Your task to perform on an android device: turn vacation reply on in the gmail app Image 0: 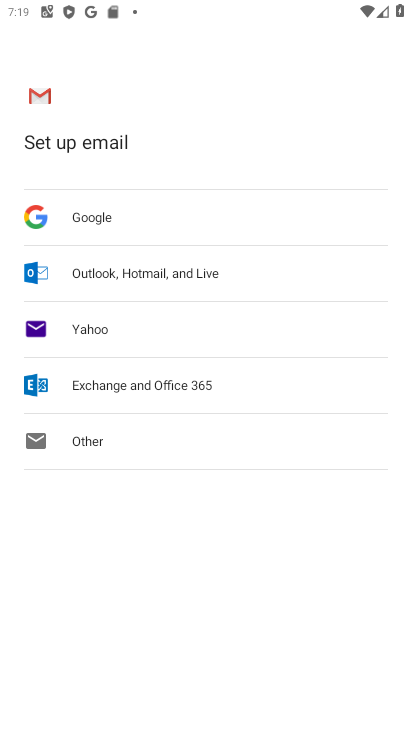
Step 0: press home button
Your task to perform on an android device: turn vacation reply on in the gmail app Image 1: 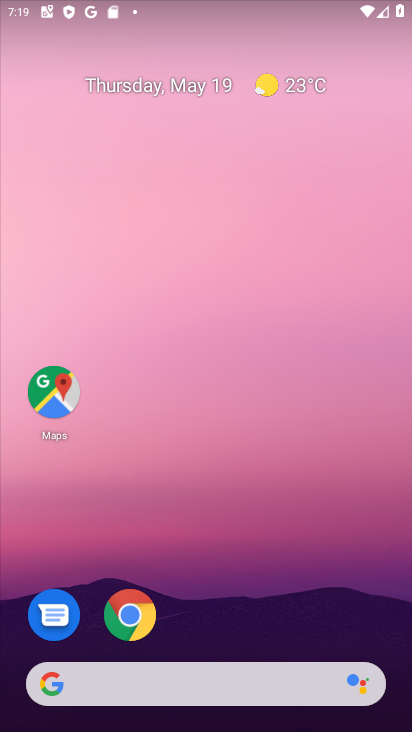
Step 1: drag from (356, 612) to (324, 61)
Your task to perform on an android device: turn vacation reply on in the gmail app Image 2: 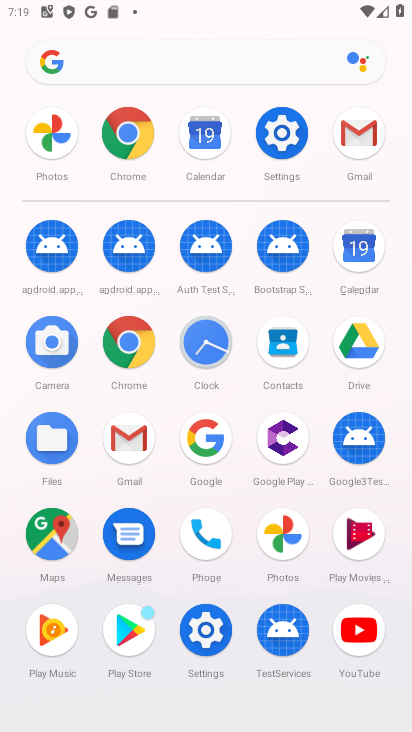
Step 2: click (131, 422)
Your task to perform on an android device: turn vacation reply on in the gmail app Image 3: 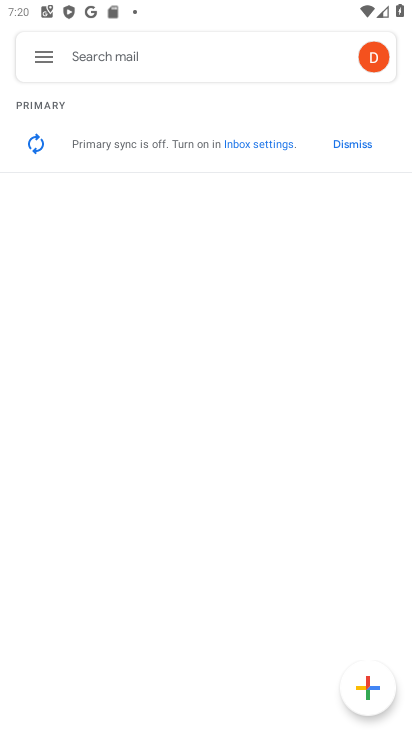
Step 3: click (44, 58)
Your task to perform on an android device: turn vacation reply on in the gmail app Image 4: 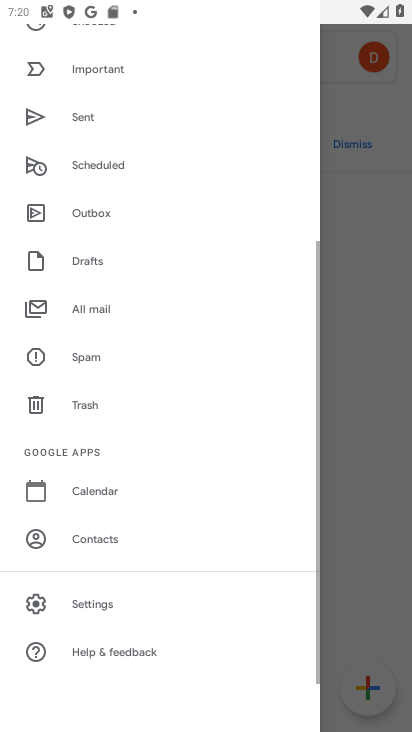
Step 4: click (107, 600)
Your task to perform on an android device: turn vacation reply on in the gmail app Image 5: 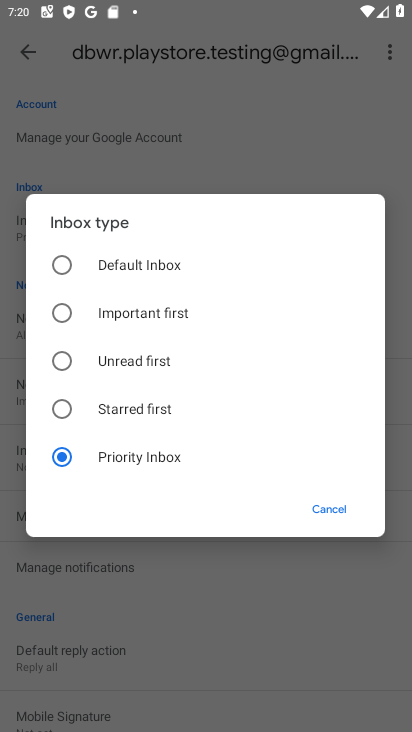
Step 5: click (331, 499)
Your task to perform on an android device: turn vacation reply on in the gmail app Image 6: 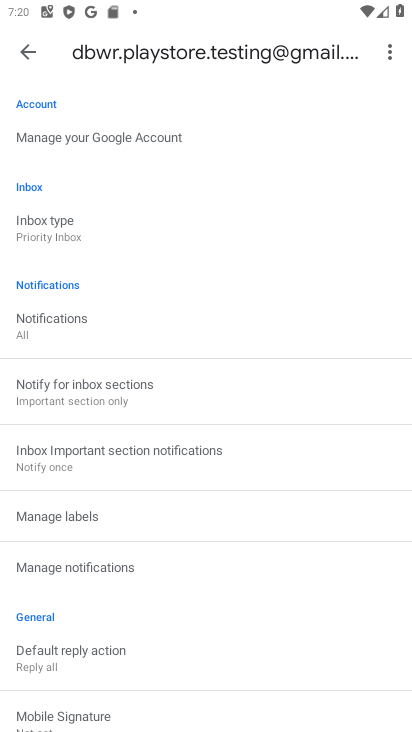
Step 6: drag from (105, 647) to (206, 151)
Your task to perform on an android device: turn vacation reply on in the gmail app Image 7: 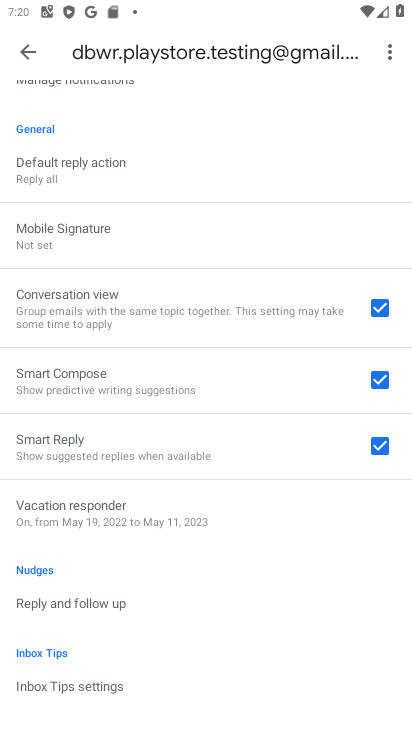
Step 7: click (137, 526)
Your task to perform on an android device: turn vacation reply on in the gmail app Image 8: 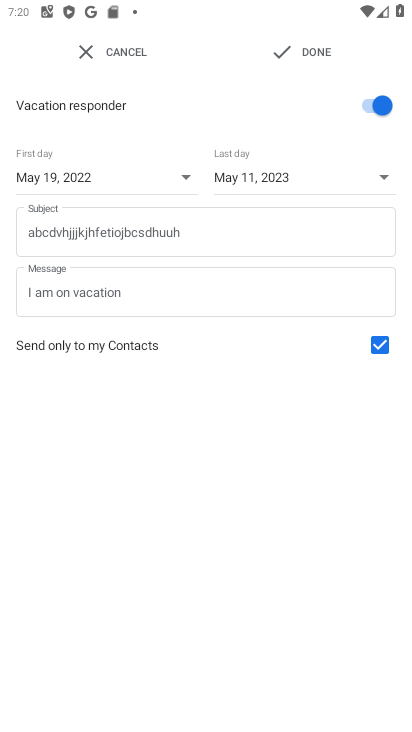
Step 8: task complete